Your task to perform on an android device: check the backup settings in the google photos Image 0: 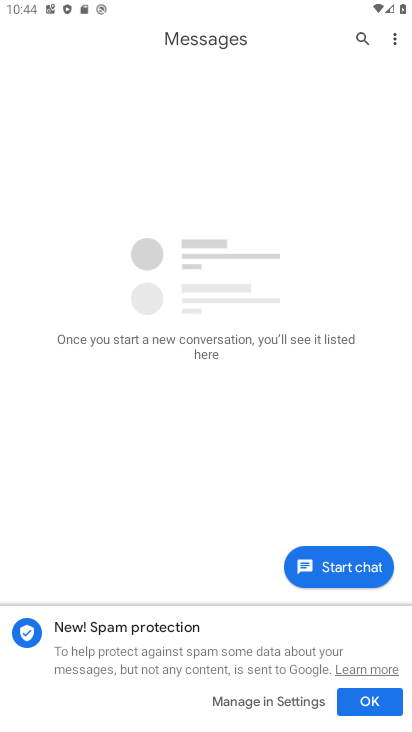
Step 0: press home button
Your task to perform on an android device: check the backup settings in the google photos Image 1: 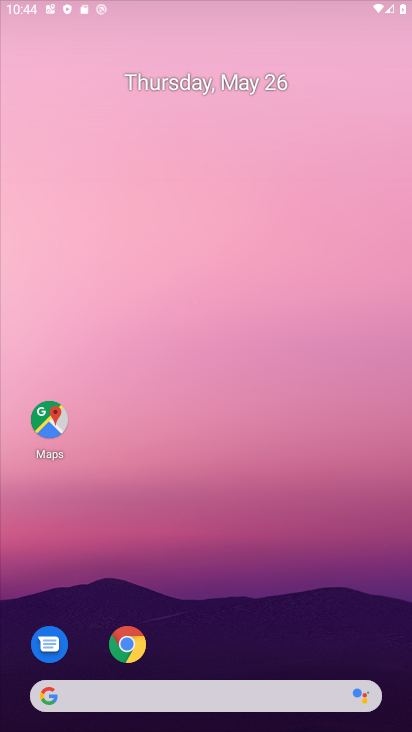
Step 1: drag from (350, 580) to (268, 20)
Your task to perform on an android device: check the backup settings in the google photos Image 2: 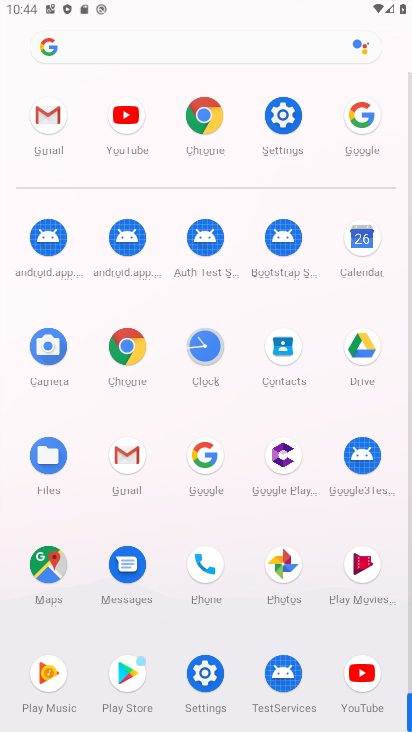
Step 2: click (286, 560)
Your task to perform on an android device: check the backup settings in the google photos Image 3: 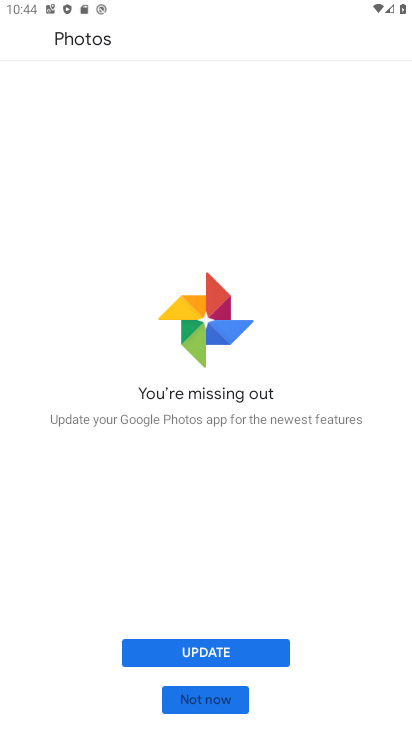
Step 3: click (221, 658)
Your task to perform on an android device: check the backup settings in the google photos Image 4: 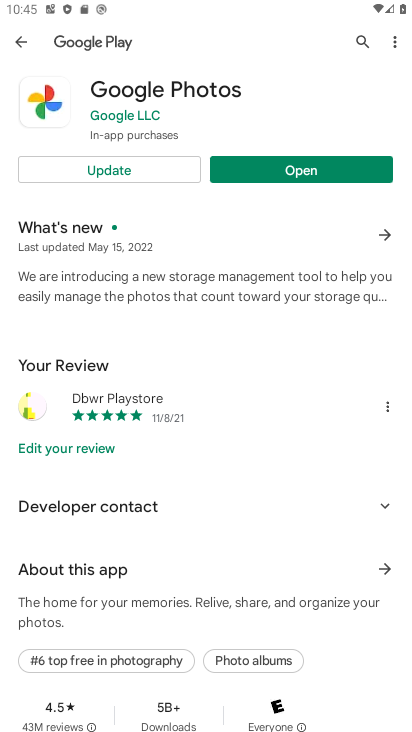
Step 4: click (128, 166)
Your task to perform on an android device: check the backup settings in the google photos Image 5: 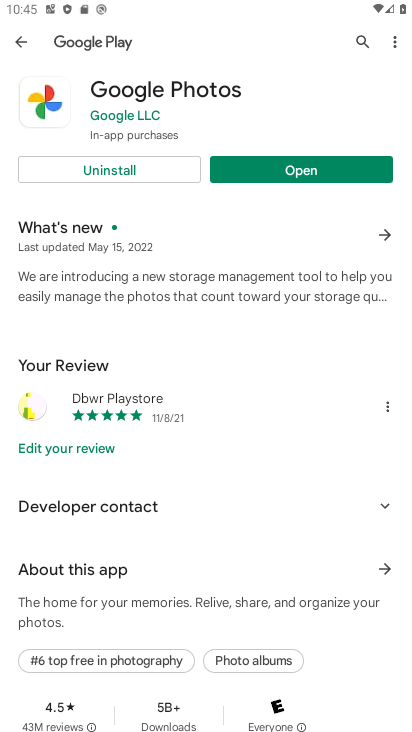
Step 5: click (326, 161)
Your task to perform on an android device: check the backup settings in the google photos Image 6: 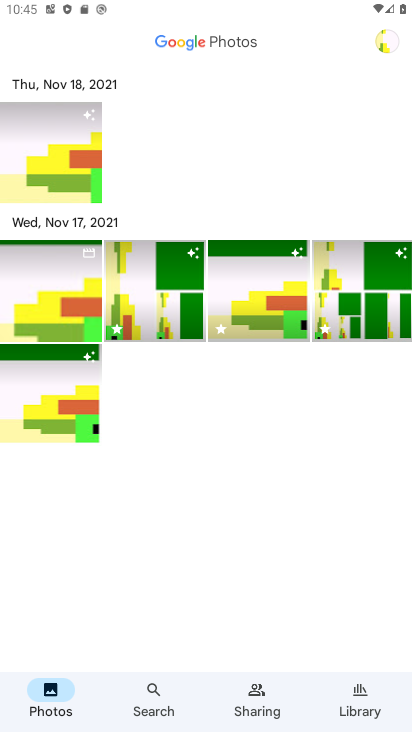
Step 6: click (385, 37)
Your task to perform on an android device: check the backup settings in the google photos Image 7: 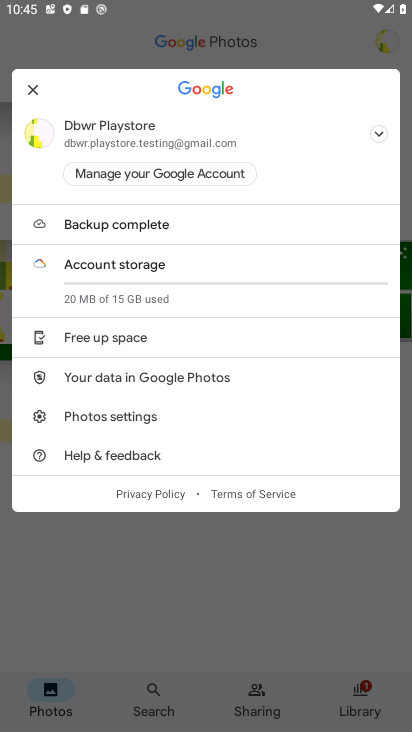
Step 7: click (135, 223)
Your task to perform on an android device: check the backup settings in the google photos Image 8: 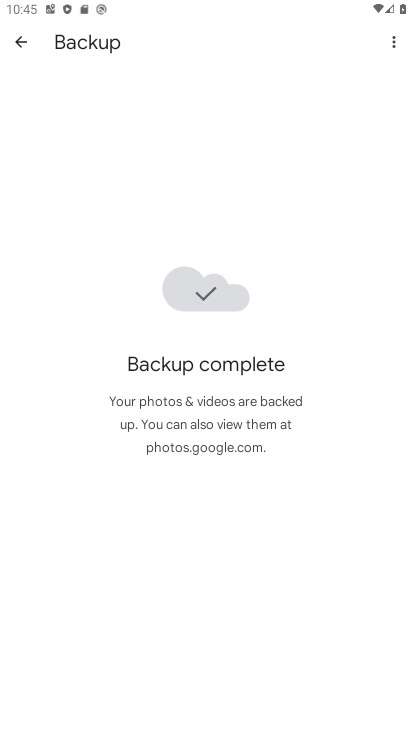
Step 8: task complete